Your task to perform on an android device: manage bookmarks in the chrome app Image 0: 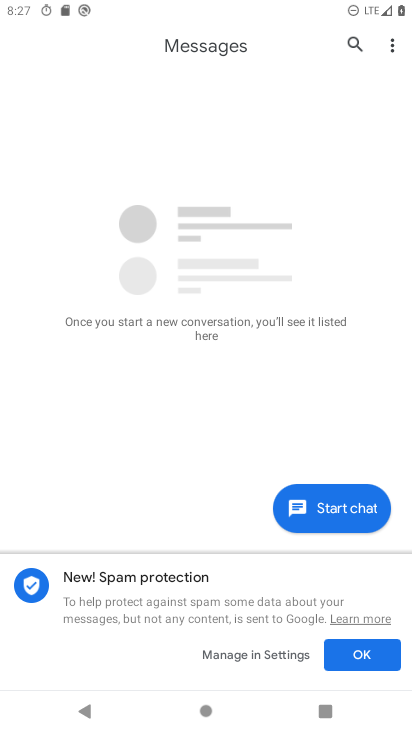
Step 0: press home button
Your task to perform on an android device: manage bookmarks in the chrome app Image 1: 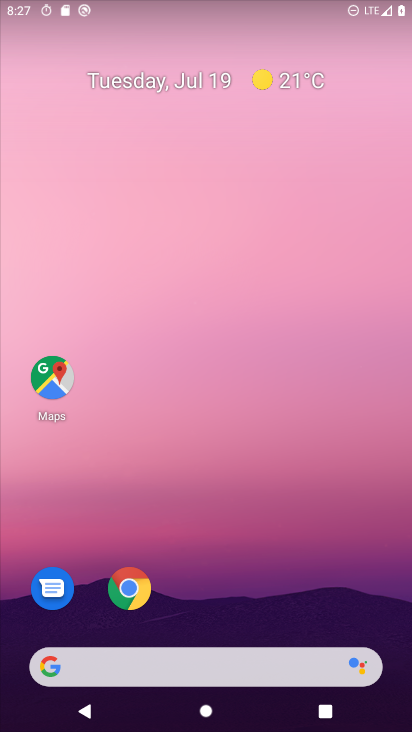
Step 1: drag from (325, 578) to (291, 86)
Your task to perform on an android device: manage bookmarks in the chrome app Image 2: 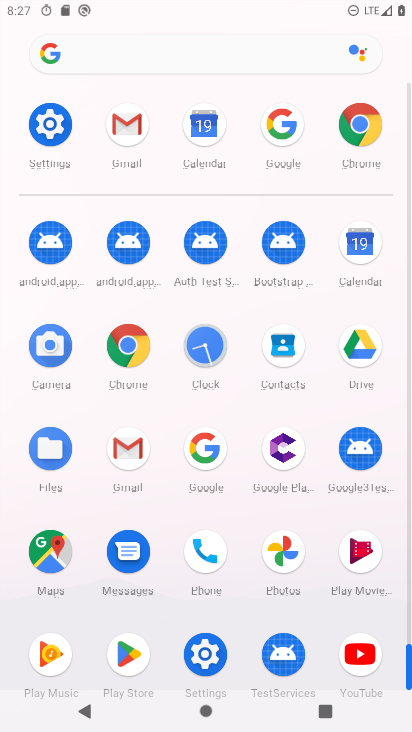
Step 2: click (129, 362)
Your task to perform on an android device: manage bookmarks in the chrome app Image 3: 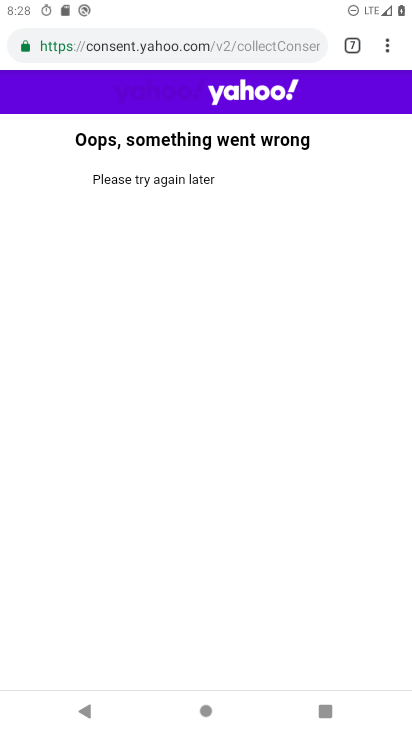
Step 3: click (389, 47)
Your task to perform on an android device: manage bookmarks in the chrome app Image 4: 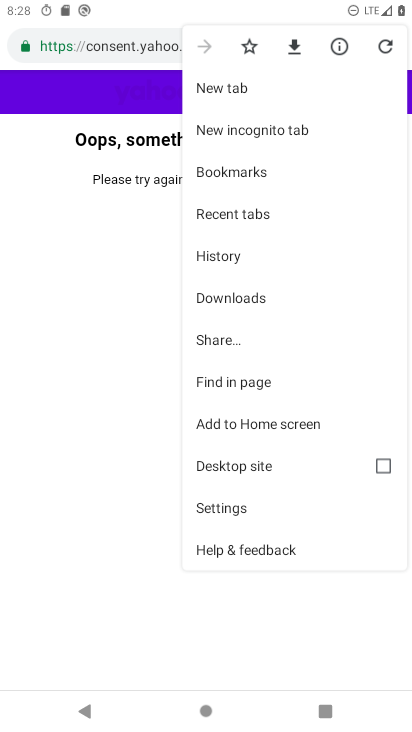
Step 4: click (257, 177)
Your task to perform on an android device: manage bookmarks in the chrome app Image 5: 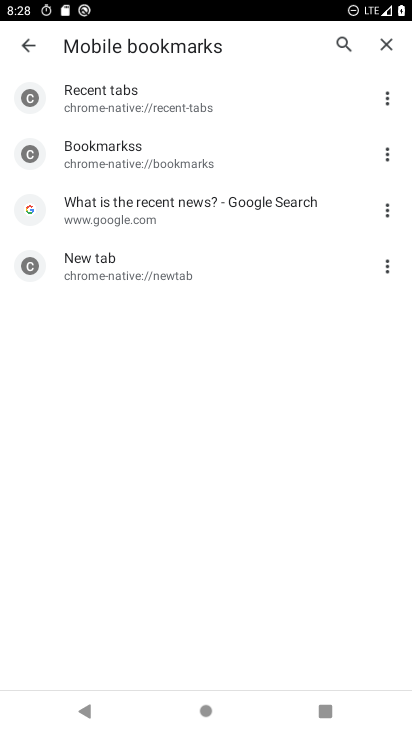
Step 5: click (374, 215)
Your task to perform on an android device: manage bookmarks in the chrome app Image 6: 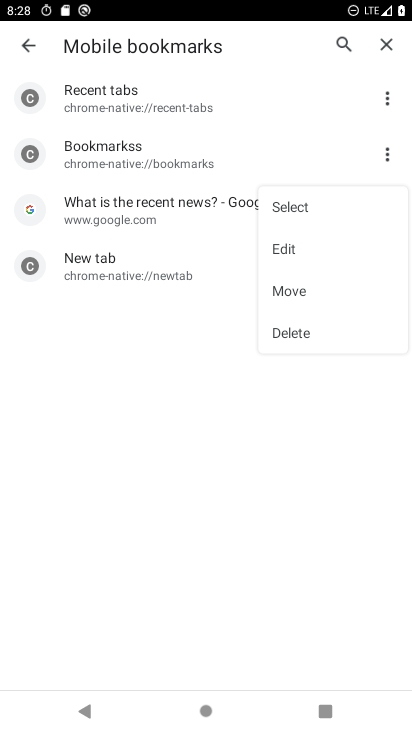
Step 6: click (301, 331)
Your task to perform on an android device: manage bookmarks in the chrome app Image 7: 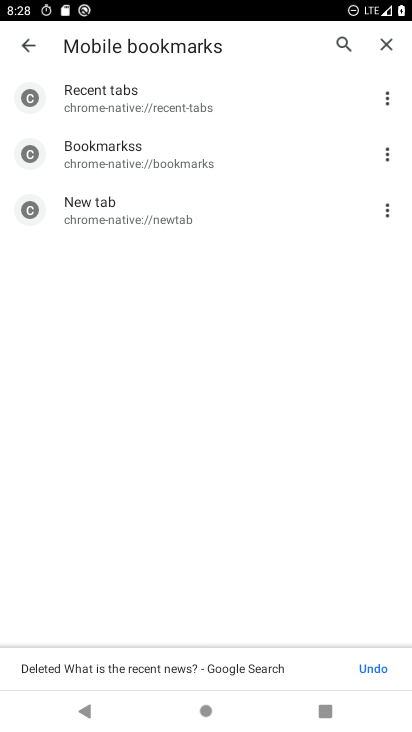
Step 7: task complete